Your task to perform on an android device: What's the weather going to be this weekend? Image 0: 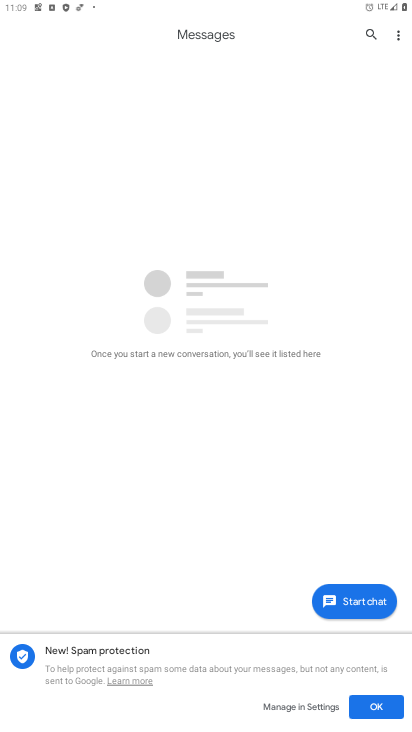
Step 0: press home button
Your task to perform on an android device: What's the weather going to be this weekend? Image 1: 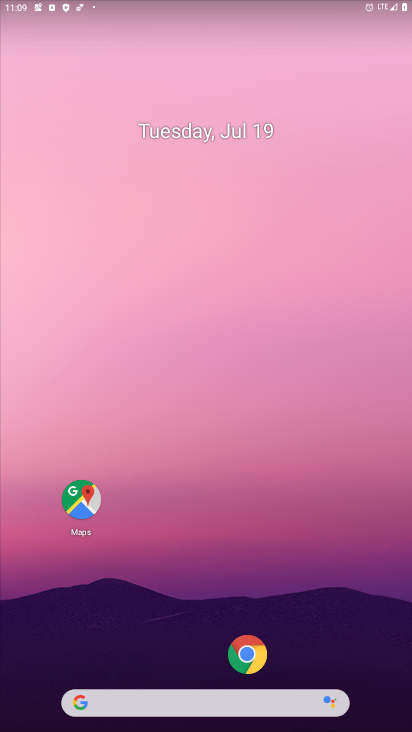
Step 1: click (108, 694)
Your task to perform on an android device: What's the weather going to be this weekend? Image 2: 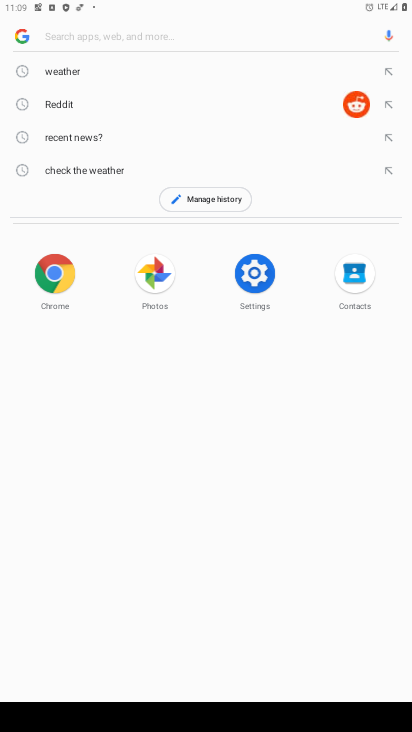
Step 2: click (89, 71)
Your task to perform on an android device: What's the weather going to be this weekend? Image 3: 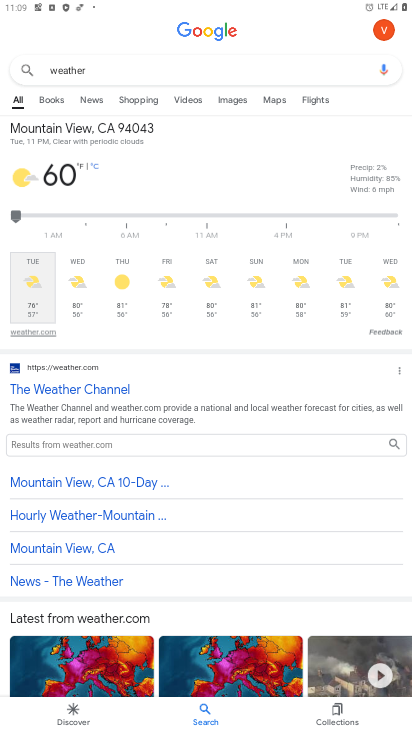
Step 3: click (259, 291)
Your task to perform on an android device: What's the weather going to be this weekend? Image 4: 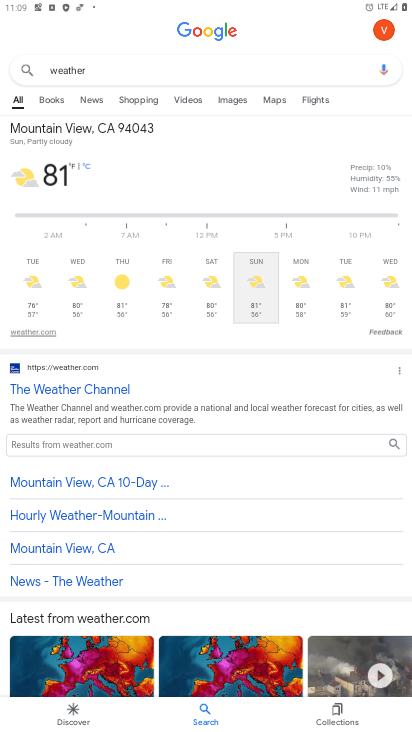
Step 4: task complete